Your task to perform on an android device: change text size in settings app Image 0: 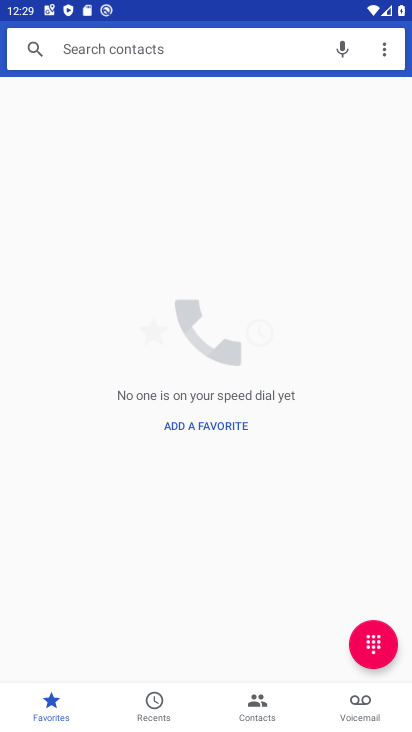
Step 0: press home button
Your task to perform on an android device: change text size in settings app Image 1: 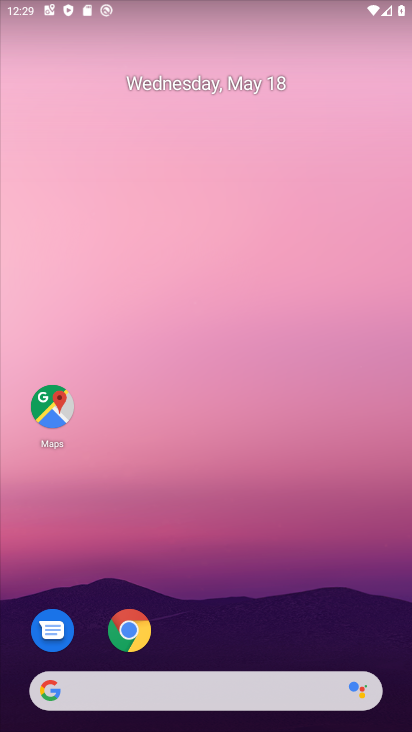
Step 1: drag from (179, 644) to (298, 110)
Your task to perform on an android device: change text size in settings app Image 2: 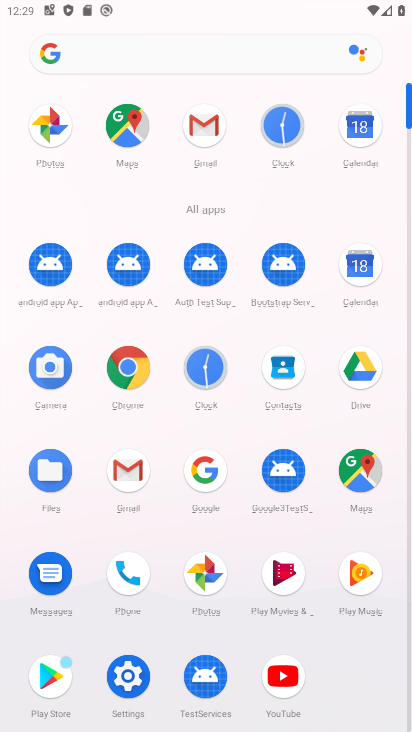
Step 2: drag from (140, 673) to (204, 435)
Your task to perform on an android device: change text size in settings app Image 3: 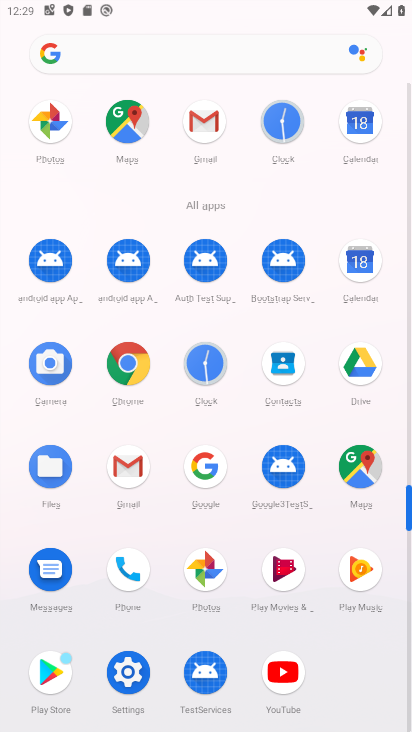
Step 3: click (136, 669)
Your task to perform on an android device: change text size in settings app Image 4: 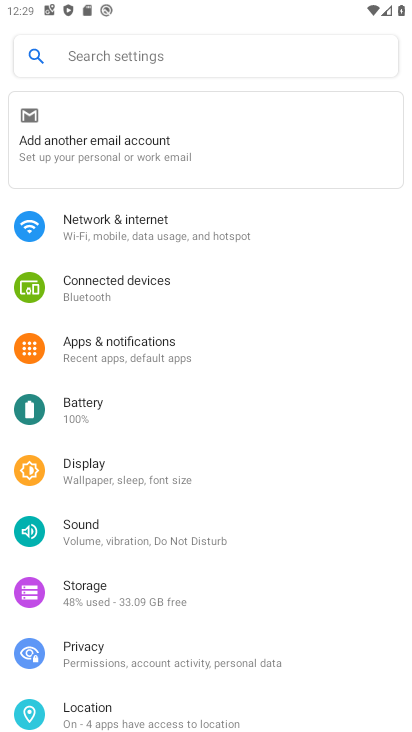
Step 4: drag from (192, 657) to (300, 248)
Your task to perform on an android device: change text size in settings app Image 5: 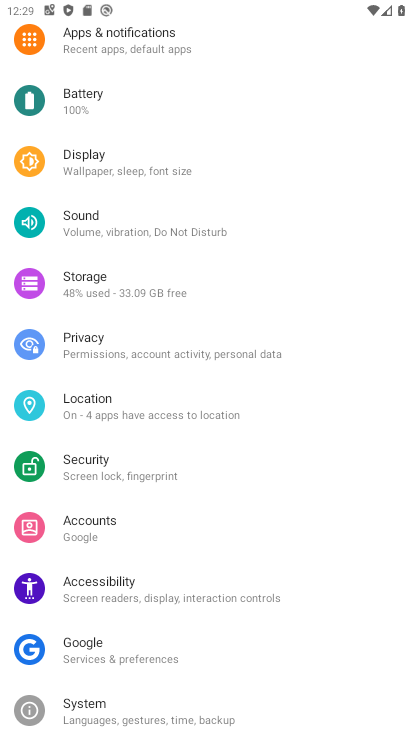
Step 5: drag from (254, 257) to (238, 549)
Your task to perform on an android device: change text size in settings app Image 6: 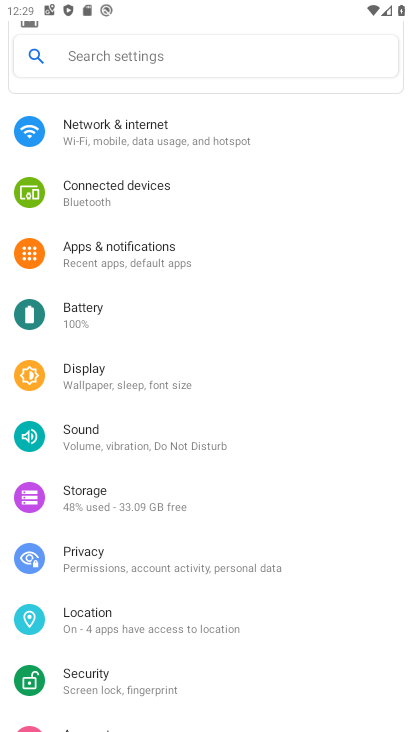
Step 6: click (138, 385)
Your task to perform on an android device: change text size in settings app Image 7: 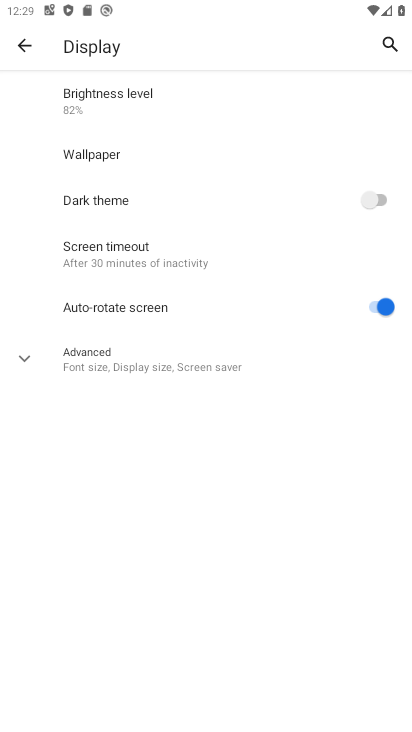
Step 7: click (148, 342)
Your task to perform on an android device: change text size in settings app Image 8: 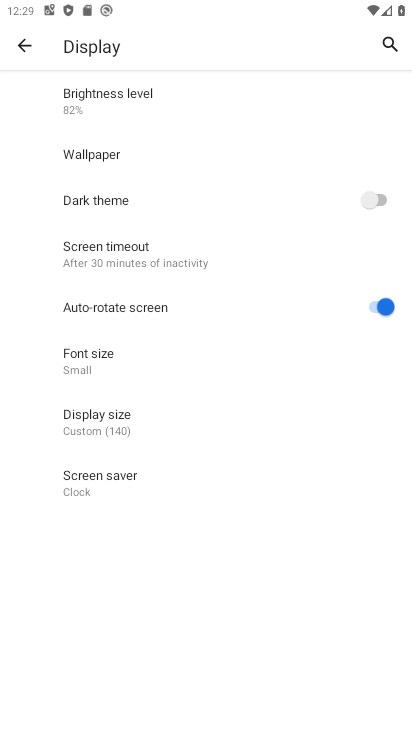
Step 8: click (161, 377)
Your task to perform on an android device: change text size in settings app Image 9: 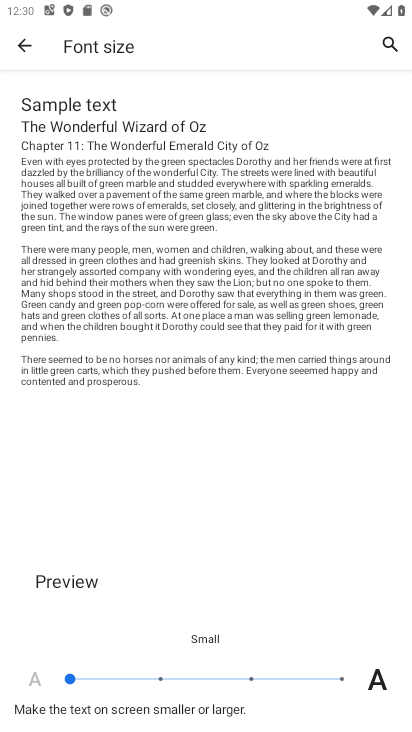
Step 9: click (161, 377)
Your task to perform on an android device: change text size in settings app Image 10: 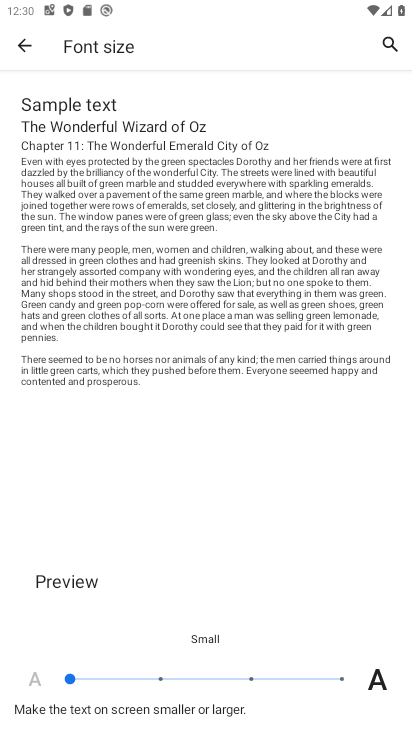
Step 10: click (161, 689)
Your task to perform on an android device: change text size in settings app Image 11: 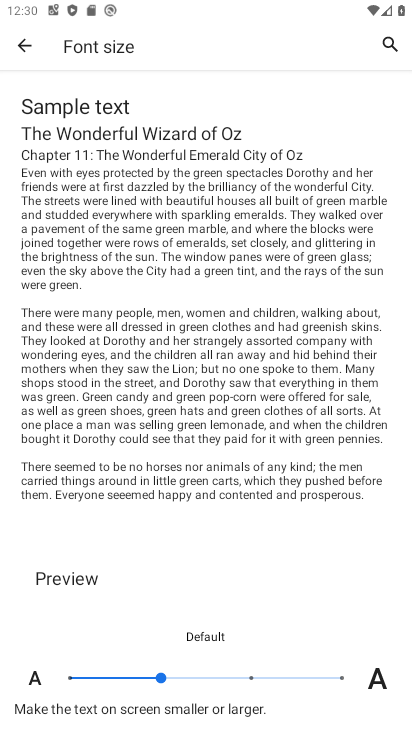
Step 11: task complete